Your task to perform on an android device: toggle data saver in the chrome app Image 0: 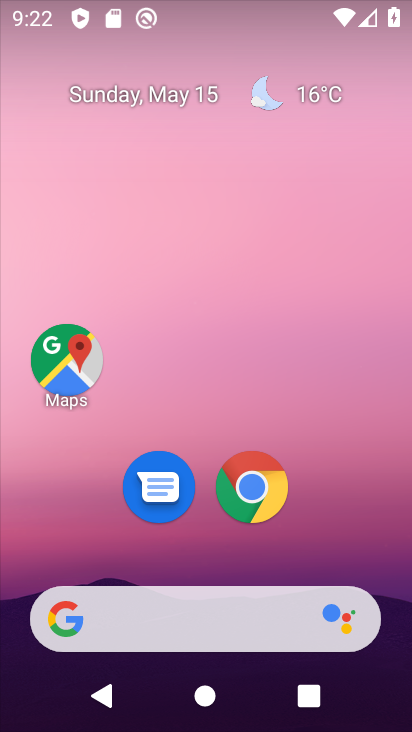
Step 0: drag from (367, 554) to (268, 527)
Your task to perform on an android device: toggle data saver in the chrome app Image 1: 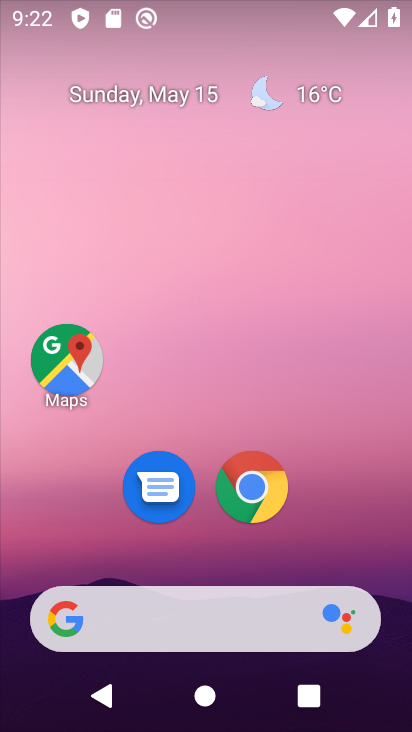
Step 1: drag from (339, 526) to (356, 101)
Your task to perform on an android device: toggle data saver in the chrome app Image 2: 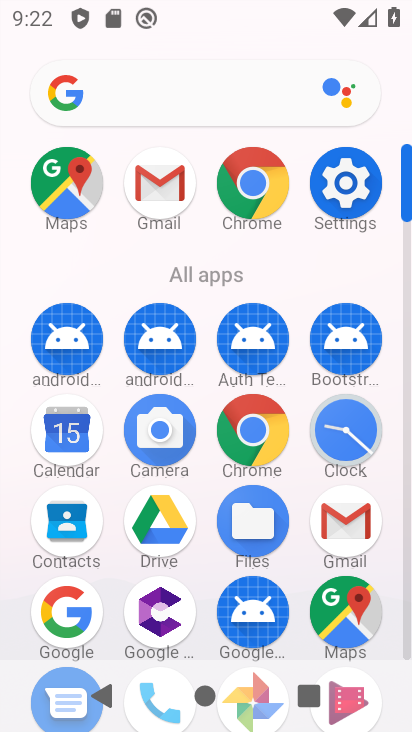
Step 2: click (263, 418)
Your task to perform on an android device: toggle data saver in the chrome app Image 3: 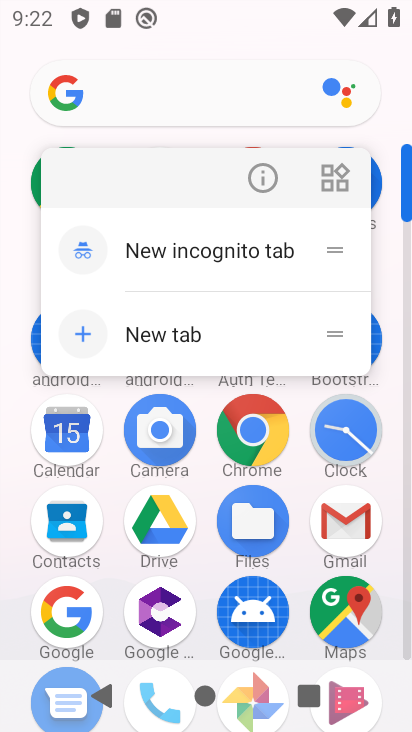
Step 3: click (264, 435)
Your task to perform on an android device: toggle data saver in the chrome app Image 4: 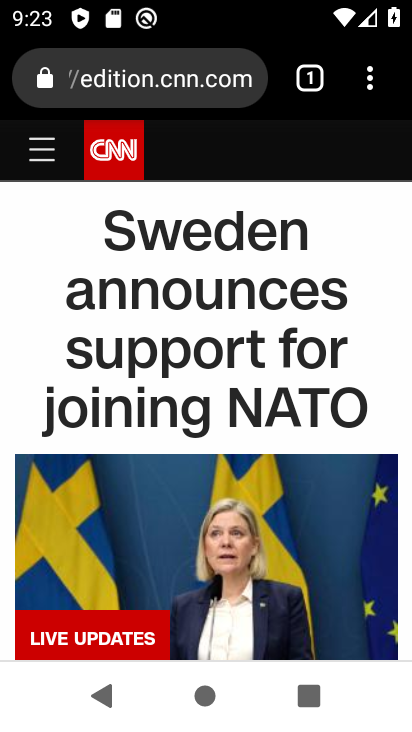
Step 4: drag from (362, 92) to (227, 558)
Your task to perform on an android device: toggle data saver in the chrome app Image 5: 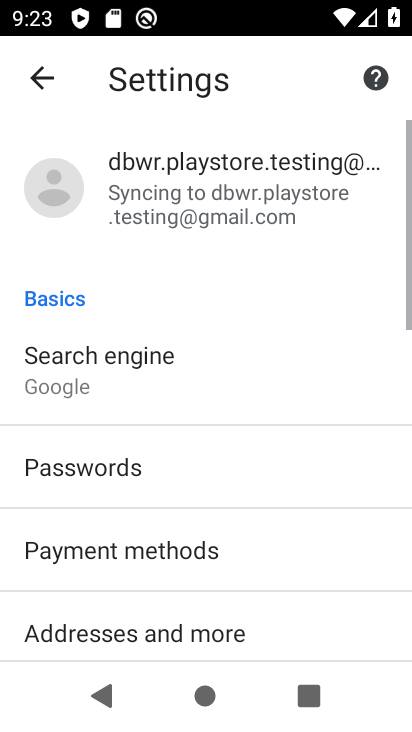
Step 5: drag from (299, 619) to (277, 314)
Your task to perform on an android device: toggle data saver in the chrome app Image 6: 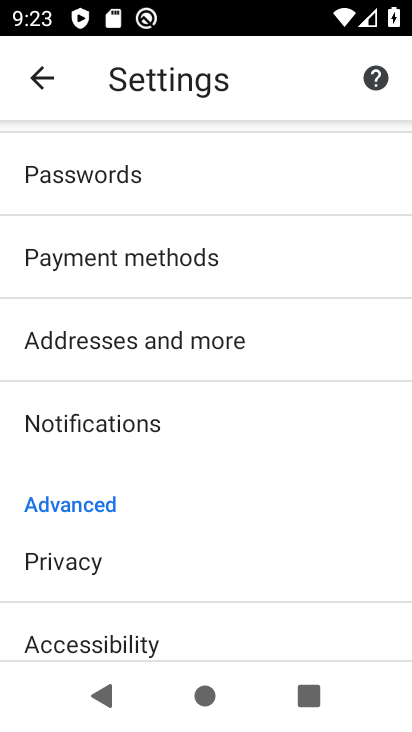
Step 6: drag from (256, 630) to (267, 337)
Your task to perform on an android device: toggle data saver in the chrome app Image 7: 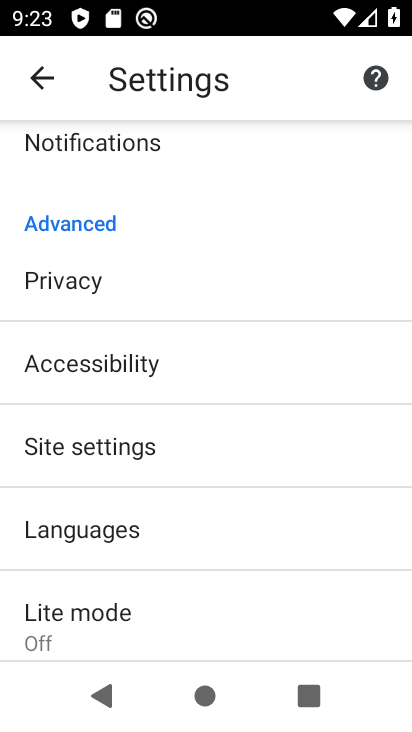
Step 7: drag from (235, 601) to (227, 361)
Your task to perform on an android device: toggle data saver in the chrome app Image 8: 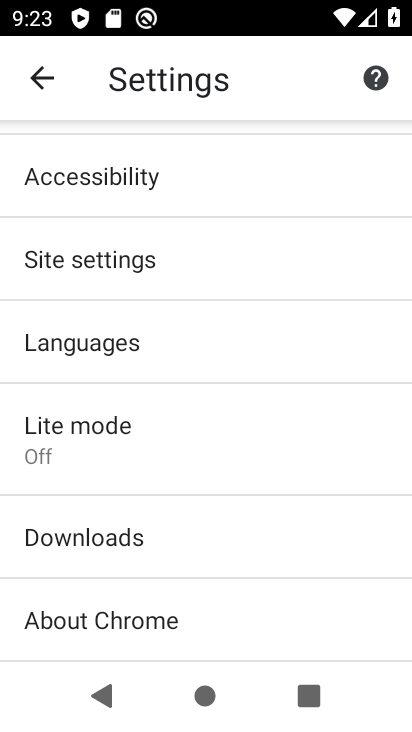
Step 8: click (145, 359)
Your task to perform on an android device: toggle data saver in the chrome app Image 9: 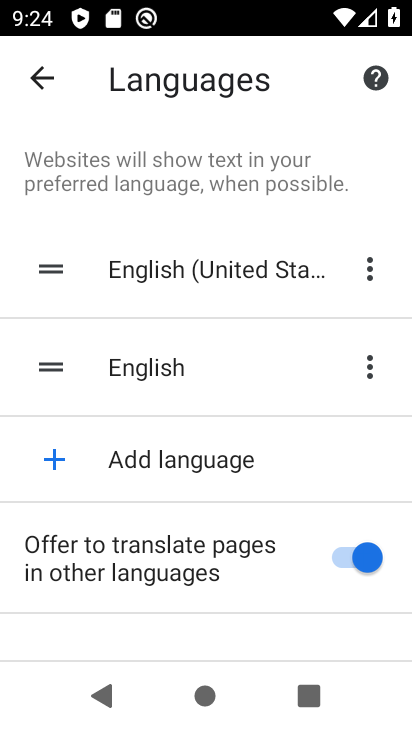
Step 9: click (25, 88)
Your task to perform on an android device: toggle data saver in the chrome app Image 10: 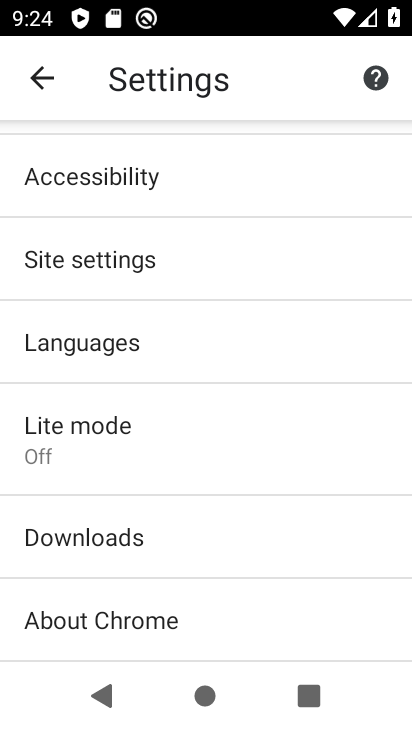
Step 10: click (128, 447)
Your task to perform on an android device: toggle data saver in the chrome app Image 11: 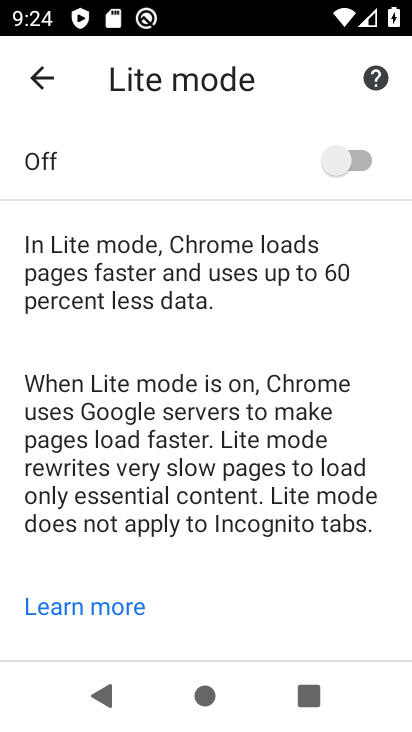
Step 11: click (366, 158)
Your task to perform on an android device: toggle data saver in the chrome app Image 12: 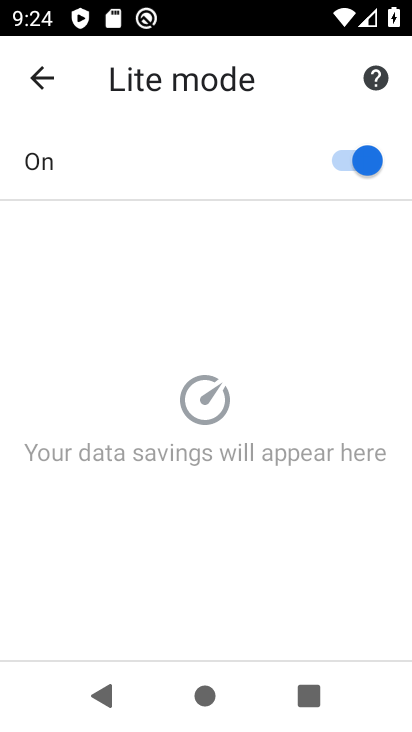
Step 12: task complete